Your task to perform on an android device: Open settings on Google Maps Image 0: 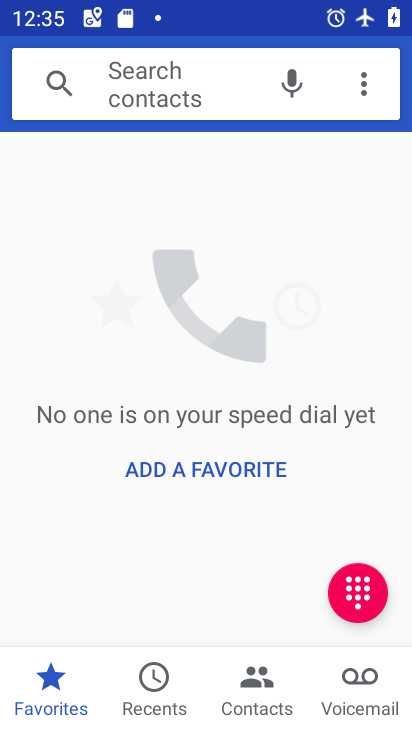
Step 0: press home button
Your task to perform on an android device: Open settings on Google Maps Image 1: 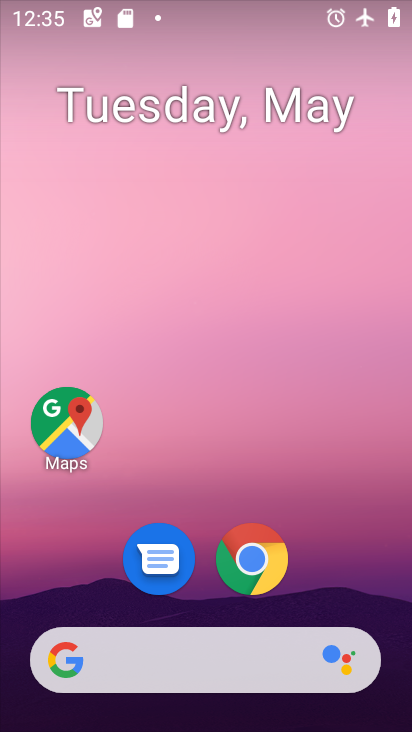
Step 1: drag from (337, 587) to (233, 84)
Your task to perform on an android device: Open settings on Google Maps Image 2: 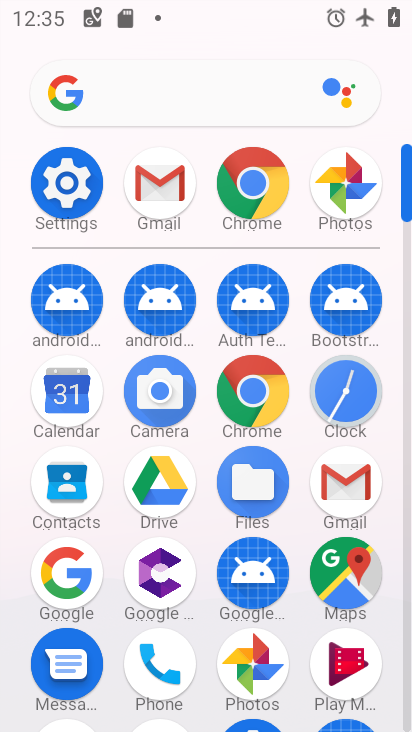
Step 2: click (358, 550)
Your task to perform on an android device: Open settings on Google Maps Image 3: 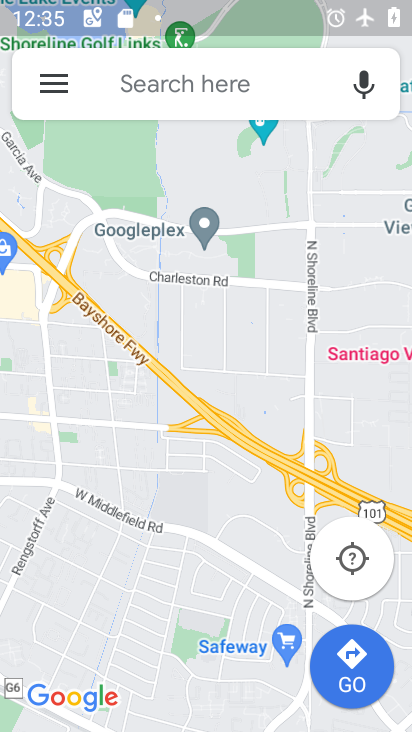
Step 3: click (48, 99)
Your task to perform on an android device: Open settings on Google Maps Image 4: 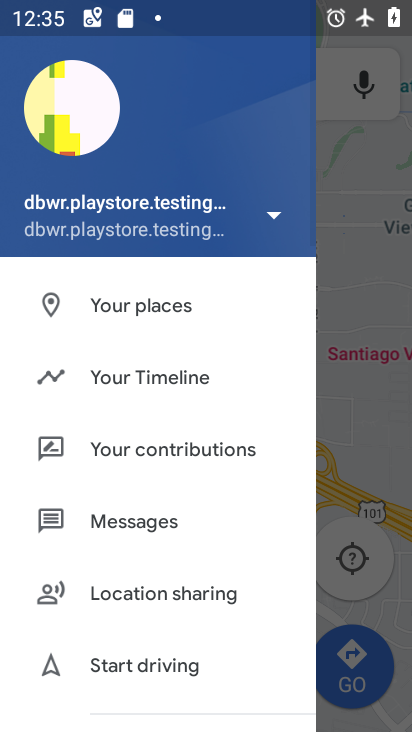
Step 4: drag from (159, 691) to (159, 102)
Your task to perform on an android device: Open settings on Google Maps Image 5: 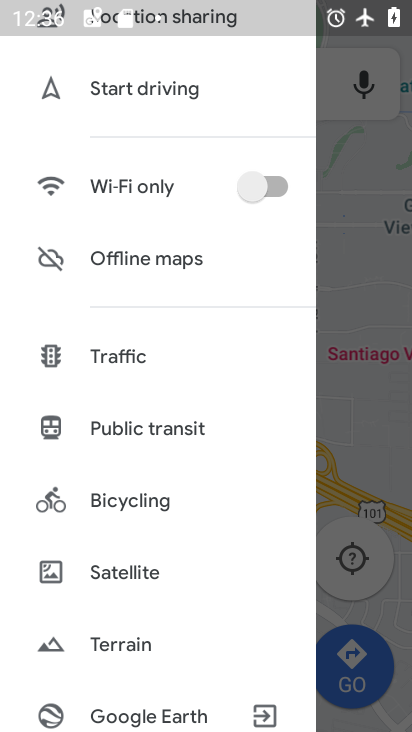
Step 5: drag from (186, 554) to (175, 82)
Your task to perform on an android device: Open settings on Google Maps Image 6: 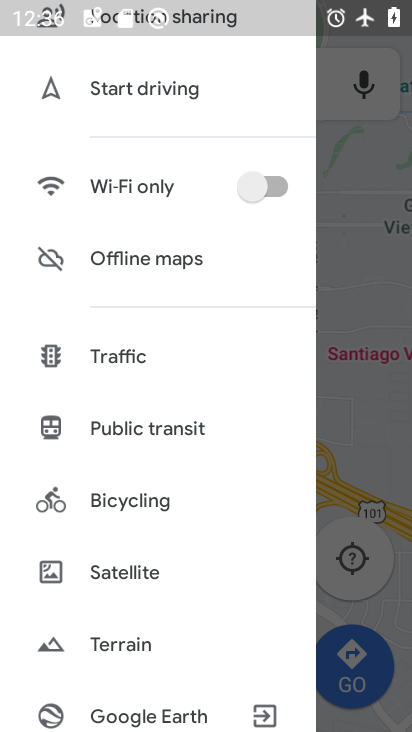
Step 6: drag from (171, 600) to (159, 71)
Your task to perform on an android device: Open settings on Google Maps Image 7: 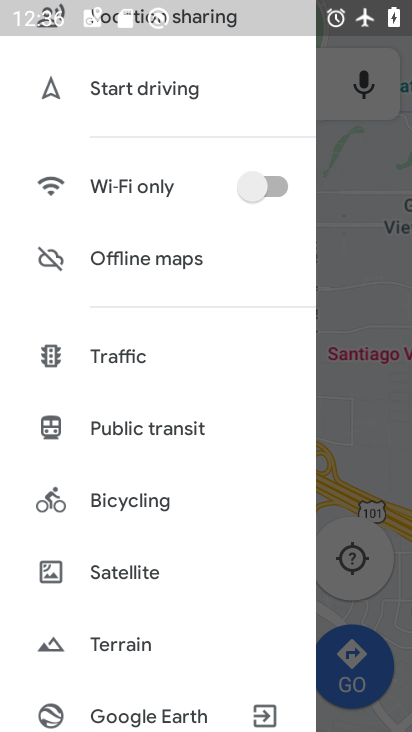
Step 7: drag from (187, 681) to (168, 66)
Your task to perform on an android device: Open settings on Google Maps Image 8: 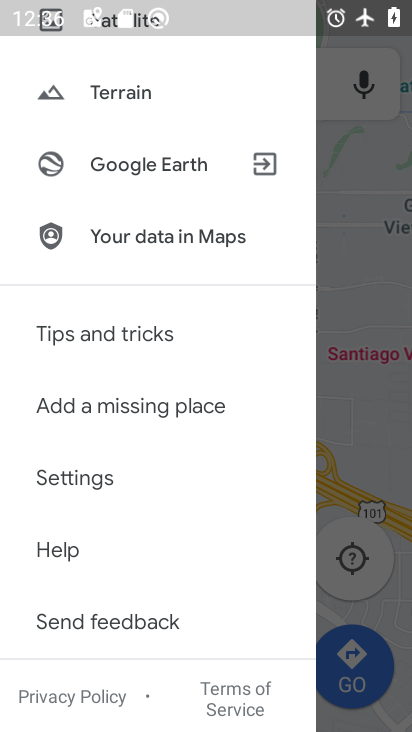
Step 8: click (169, 478)
Your task to perform on an android device: Open settings on Google Maps Image 9: 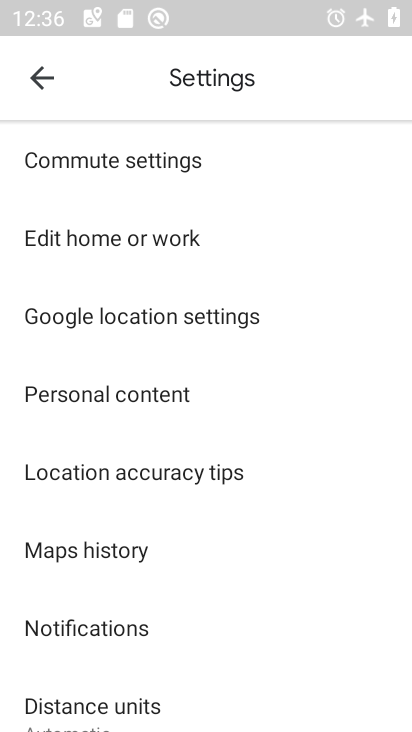
Step 9: task complete